Your task to perform on an android device: Open Google Chrome Image 0: 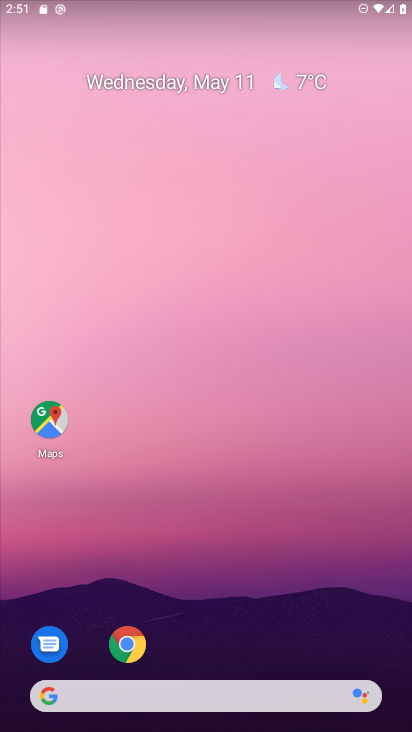
Step 0: click (121, 643)
Your task to perform on an android device: Open Google Chrome Image 1: 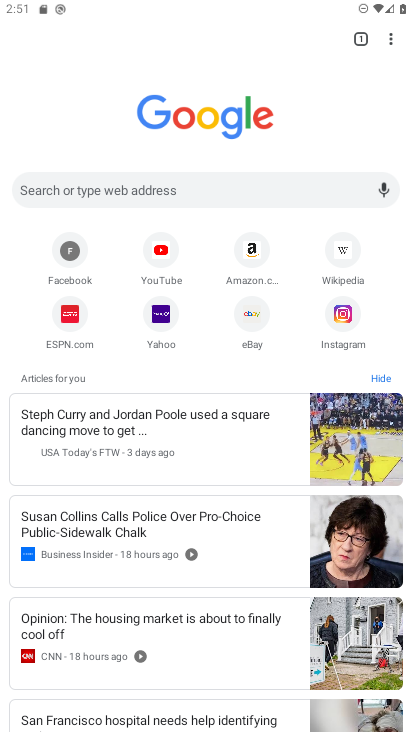
Step 1: task complete